Your task to perform on an android device: See recent photos Image 0: 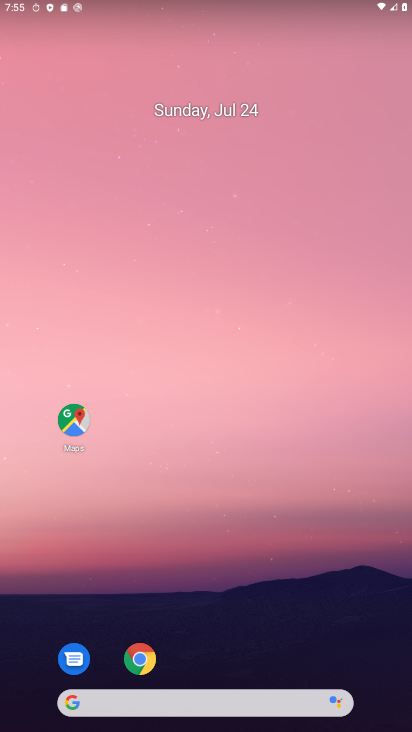
Step 0: click (318, 156)
Your task to perform on an android device: See recent photos Image 1: 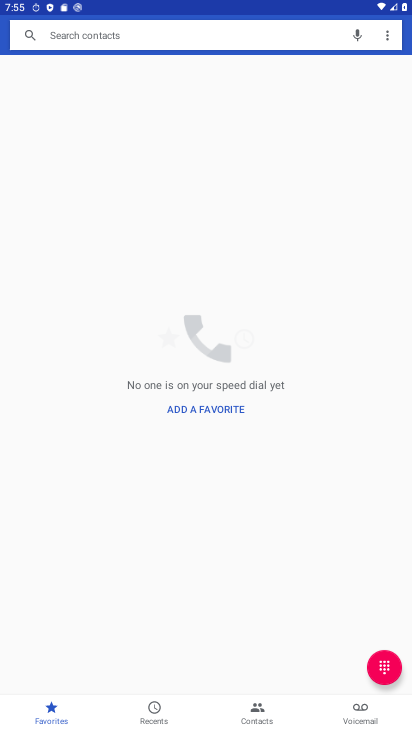
Step 1: drag from (285, 553) to (266, 129)
Your task to perform on an android device: See recent photos Image 2: 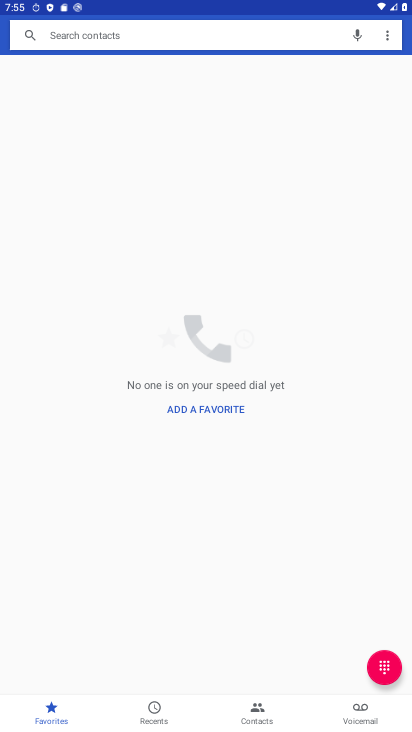
Step 2: press back button
Your task to perform on an android device: See recent photos Image 3: 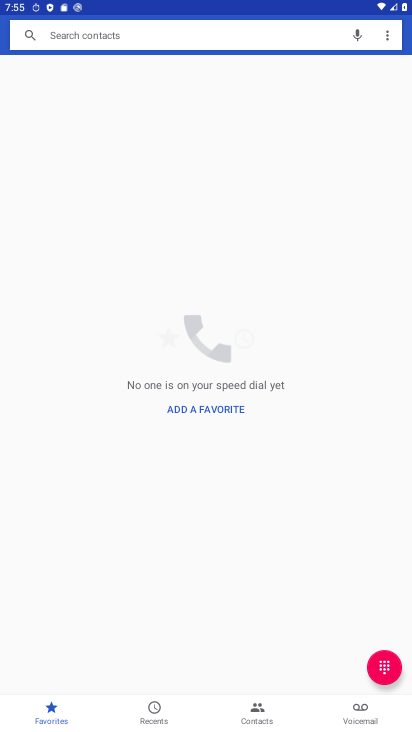
Step 3: press back button
Your task to perform on an android device: See recent photos Image 4: 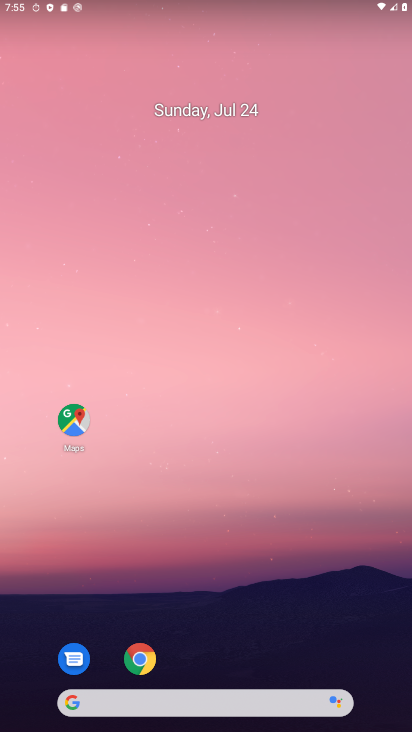
Step 4: drag from (267, 719) to (362, 196)
Your task to perform on an android device: See recent photos Image 5: 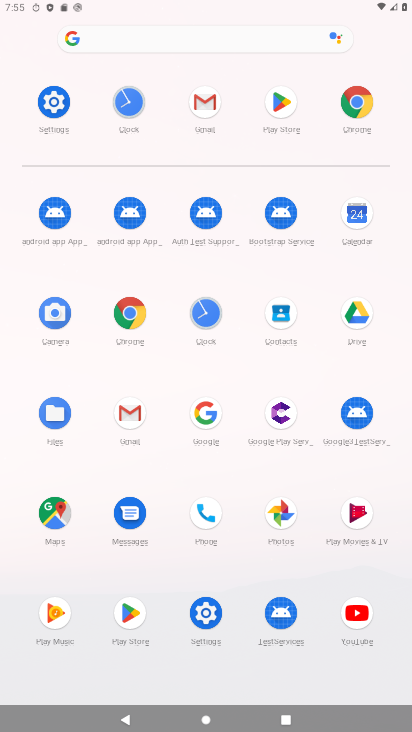
Step 5: click (273, 514)
Your task to perform on an android device: See recent photos Image 6: 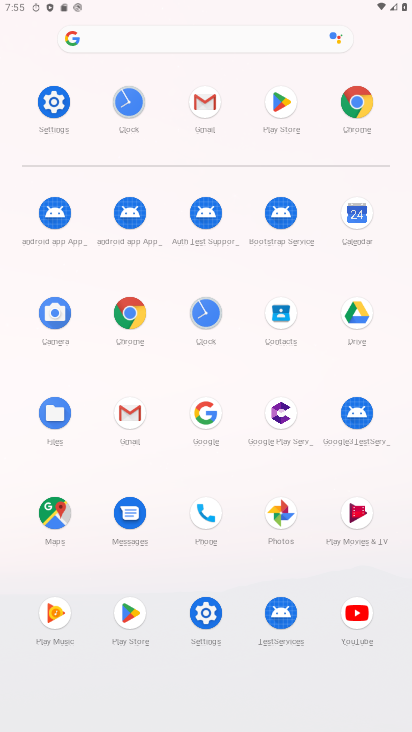
Step 6: click (275, 516)
Your task to perform on an android device: See recent photos Image 7: 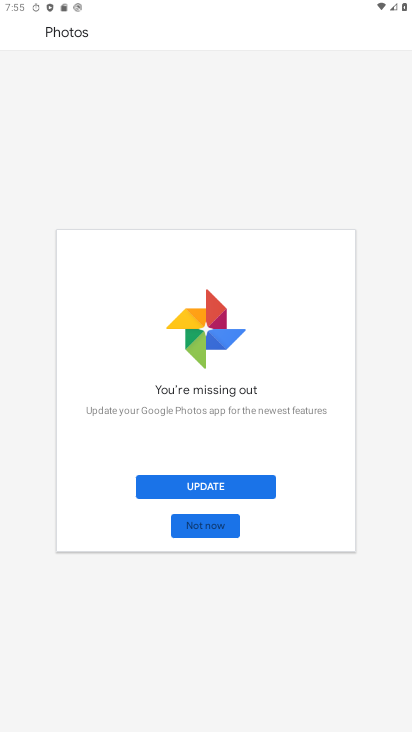
Step 7: click (196, 525)
Your task to perform on an android device: See recent photos Image 8: 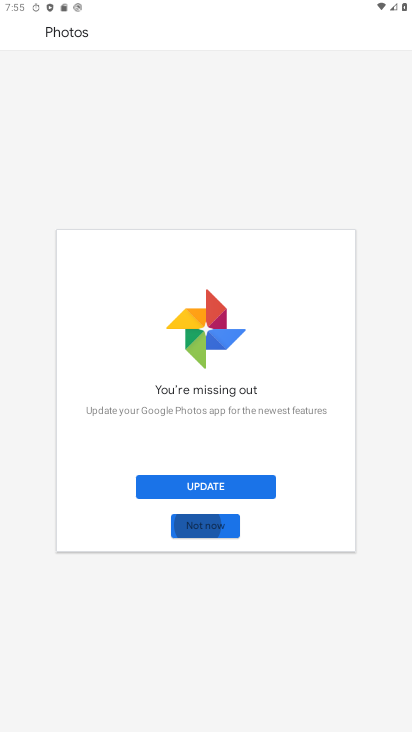
Step 8: click (205, 520)
Your task to perform on an android device: See recent photos Image 9: 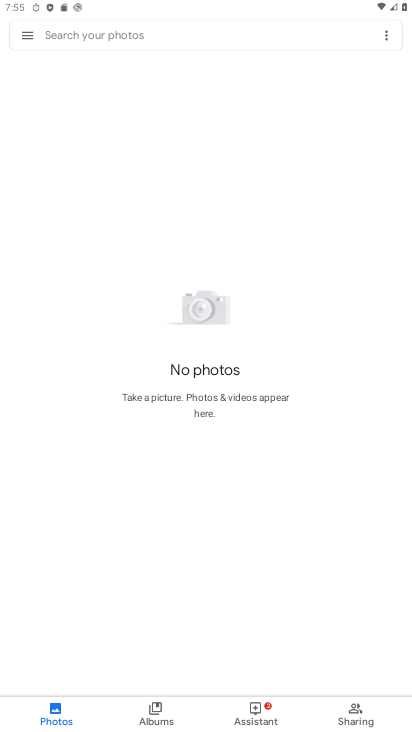
Step 9: task complete